Your task to perform on an android device: Open location settings Image 0: 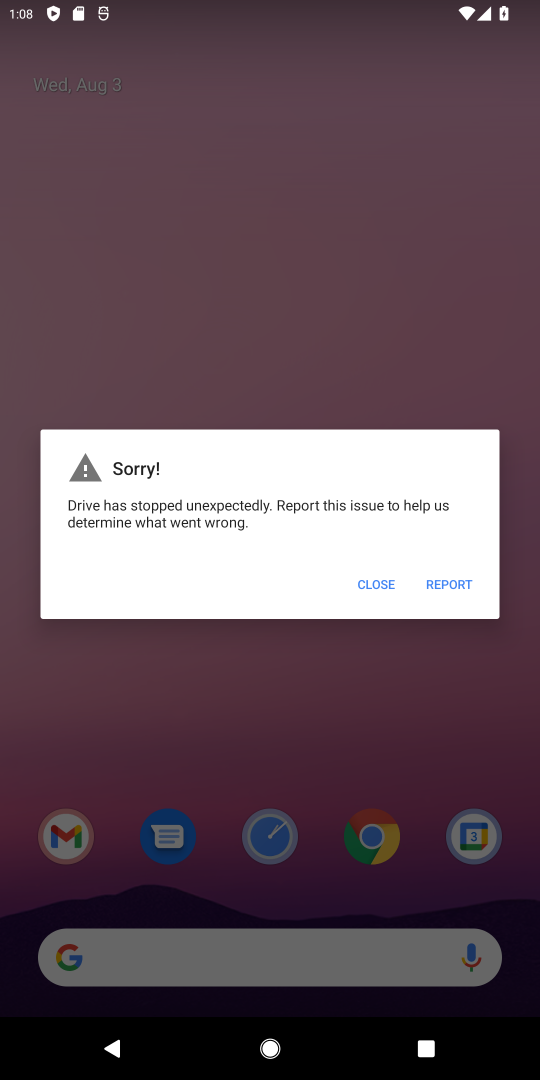
Step 0: press home button
Your task to perform on an android device: Open location settings Image 1: 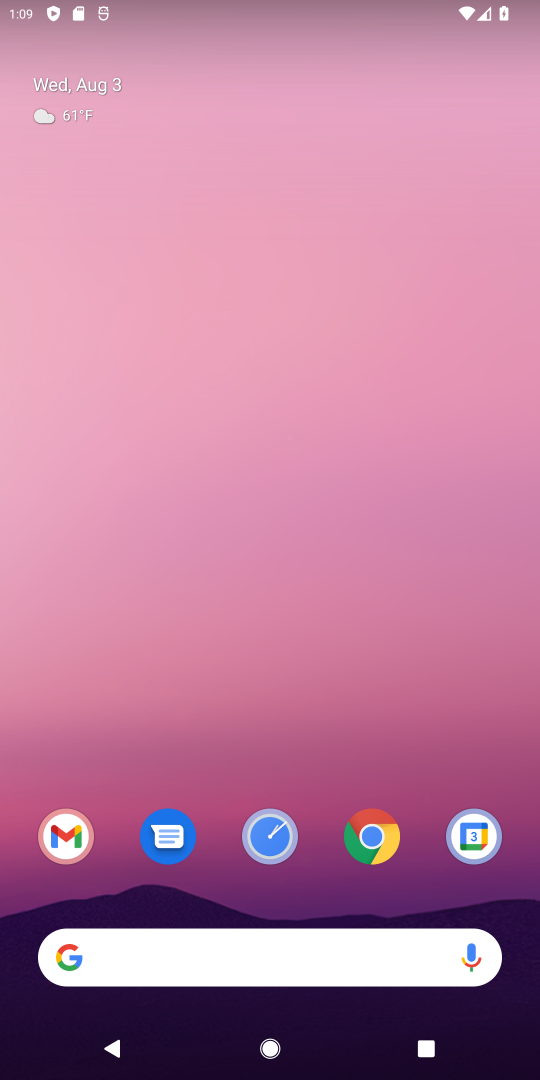
Step 1: drag from (255, 912) to (268, 247)
Your task to perform on an android device: Open location settings Image 2: 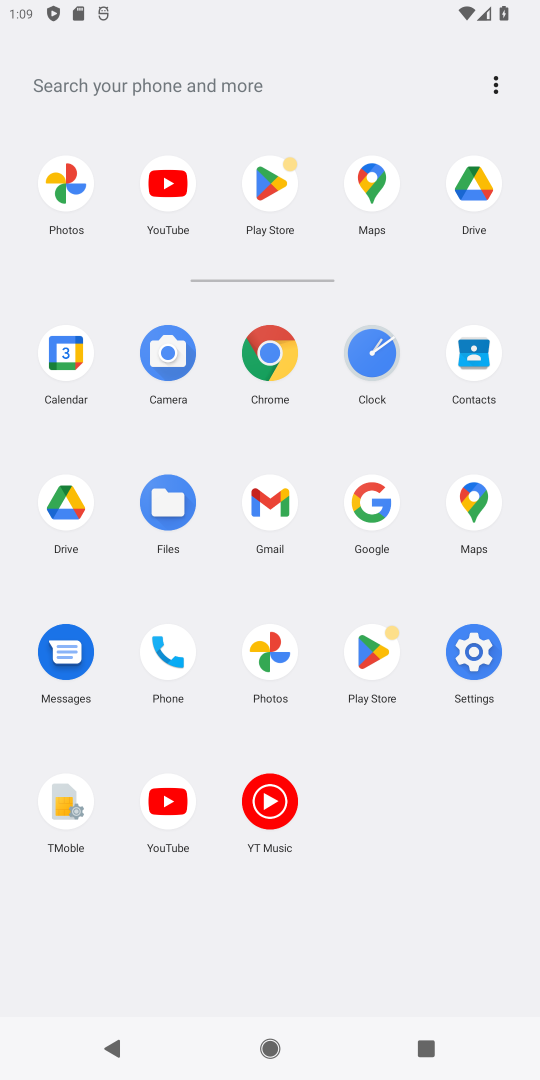
Step 2: drag from (283, 876) to (367, 380)
Your task to perform on an android device: Open location settings Image 3: 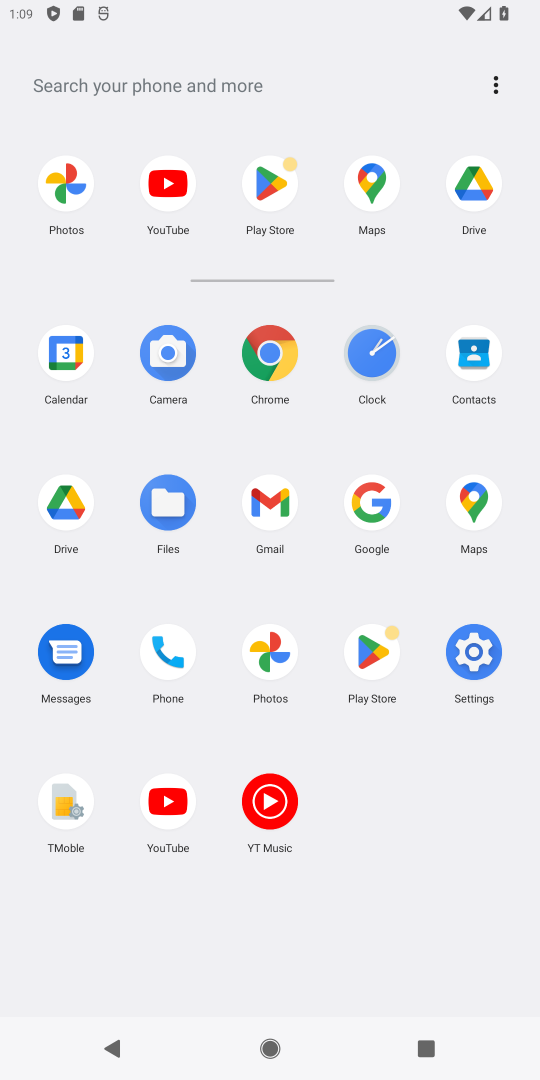
Step 3: click (482, 634)
Your task to perform on an android device: Open location settings Image 4: 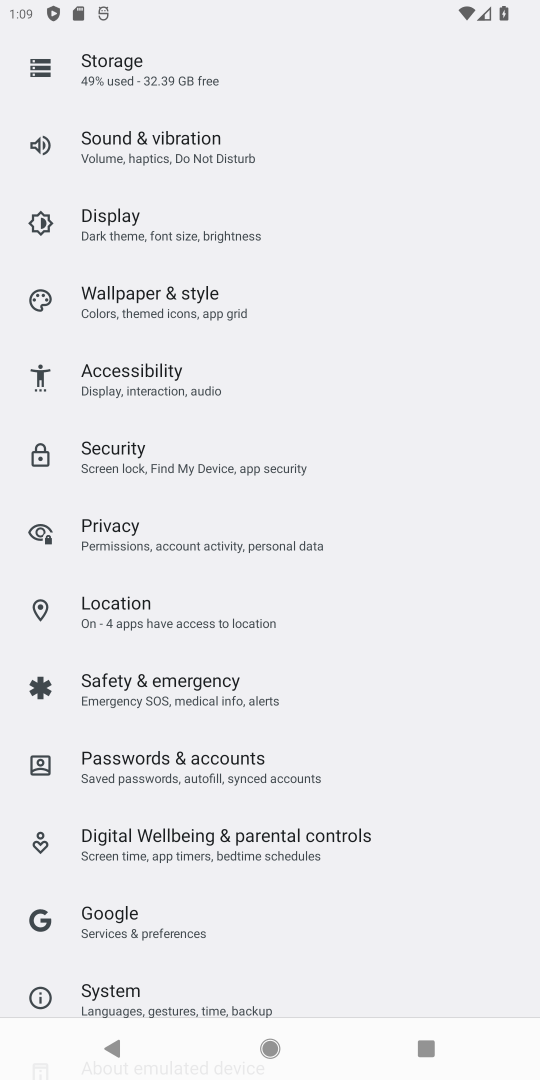
Step 4: click (96, 624)
Your task to perform on an android device: Open location settings Image 5: 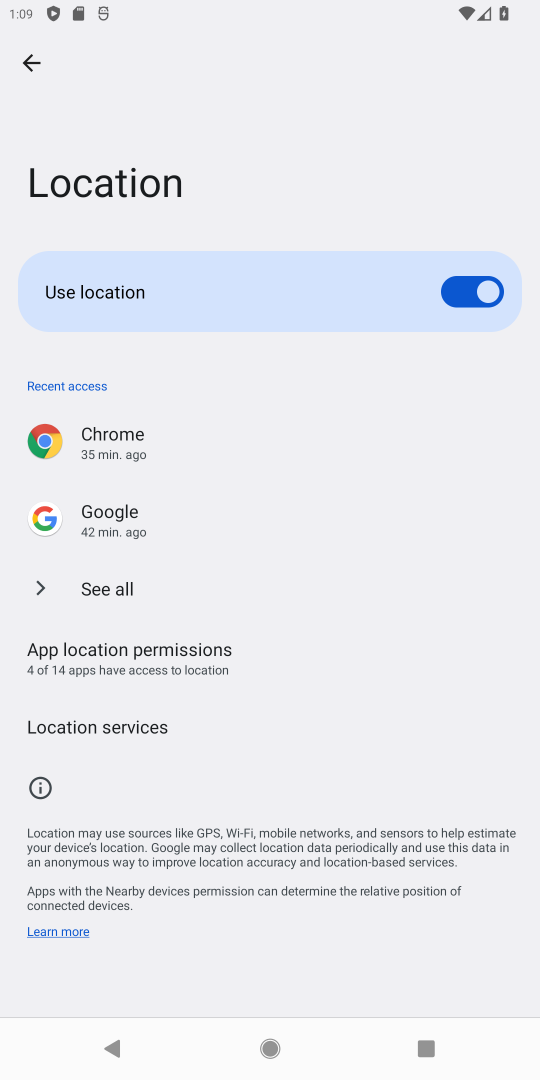
Step 5: task complete